Your task to perform on an android device: delete location history Image 0: 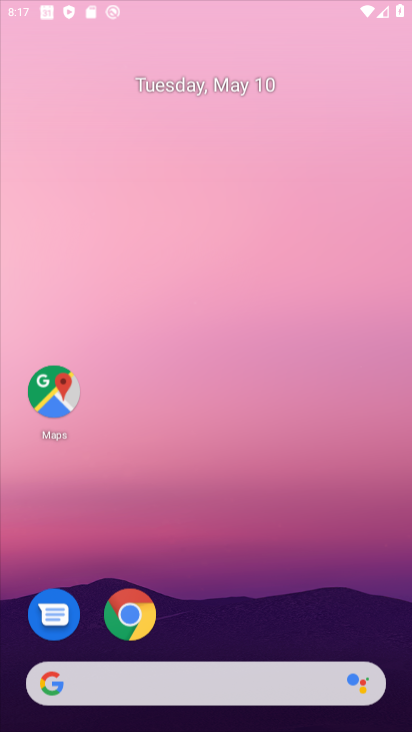
Step 0: click (220, 197)
Your task to perform on an android device: delete location history Image 1: 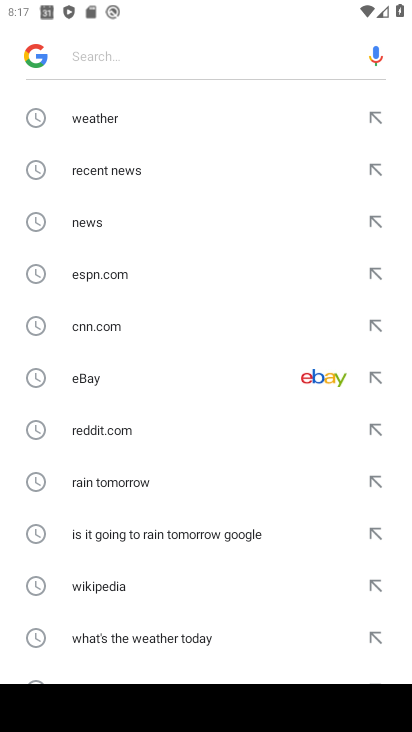
Step 1: press home button
Your task to perform on an android device: delete location history Image 2: 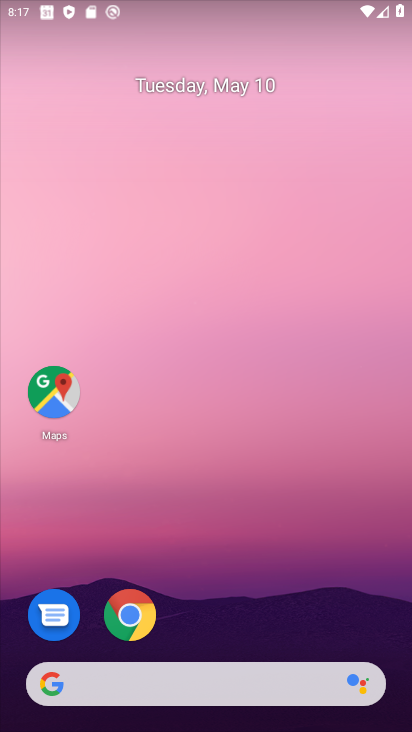
Step 2: drag from (212, 621) to (222, 204)
Your task to perform on an android device: delete location history Image 3: 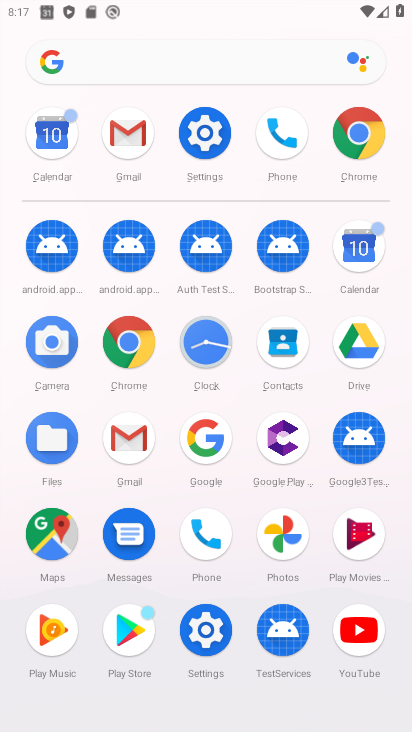
Step 3: click (213, 130)
Your task to perform on an android device: delete location history Image 4: 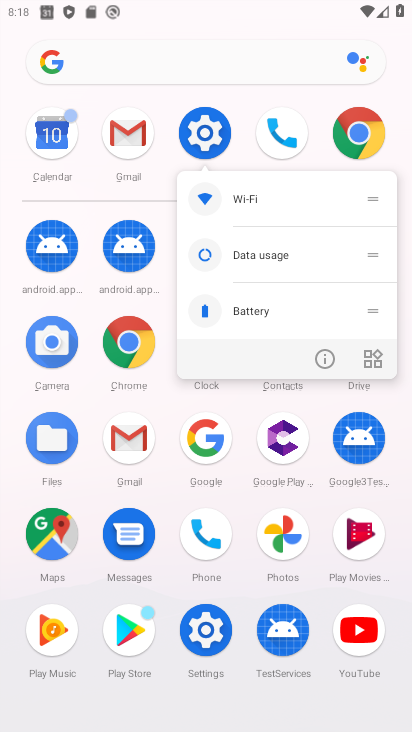
Step 4: click (330, 356)
Your task to perform on an android device: delete location history Image 5: 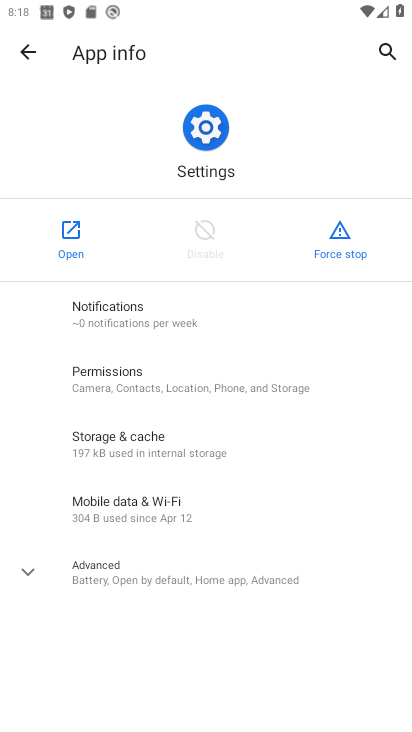
Step 5: click (85, 258)
Your task to perform on an android device: delete location history Image 6: 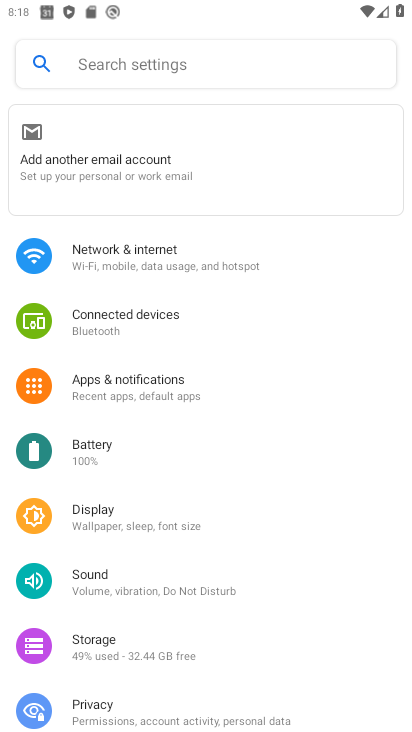
Step 6: drag from (191, 613) to (220, 229)
Your task to perform on an android device: delete location history Image 7: 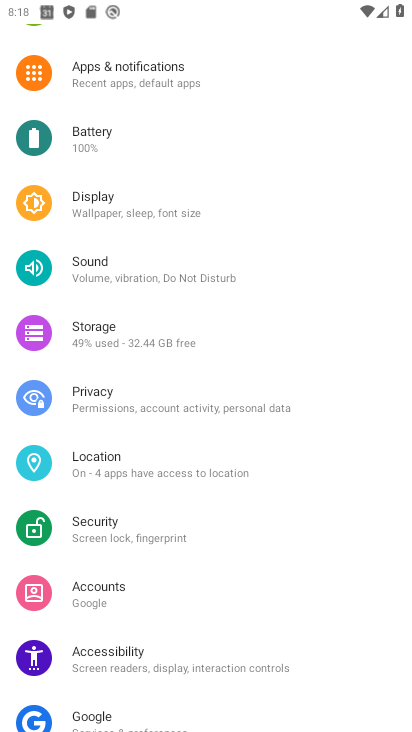
Step 7: click (139, 476)
Your task to perform on an android device: delete location history Image 8: 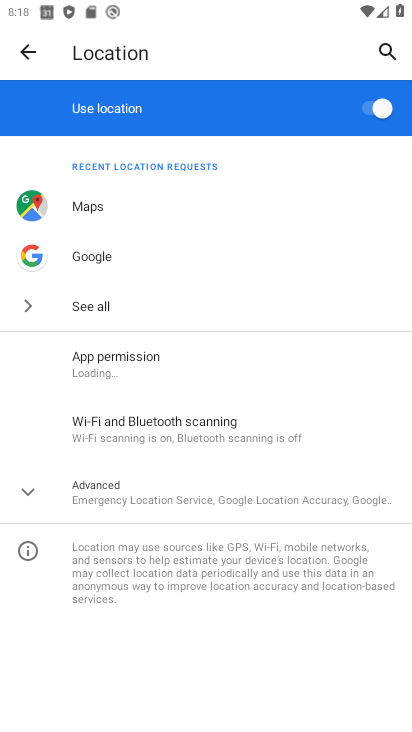
Step 8: click (107, 461)
Your task to perform on an android device: delete location history Image 9: 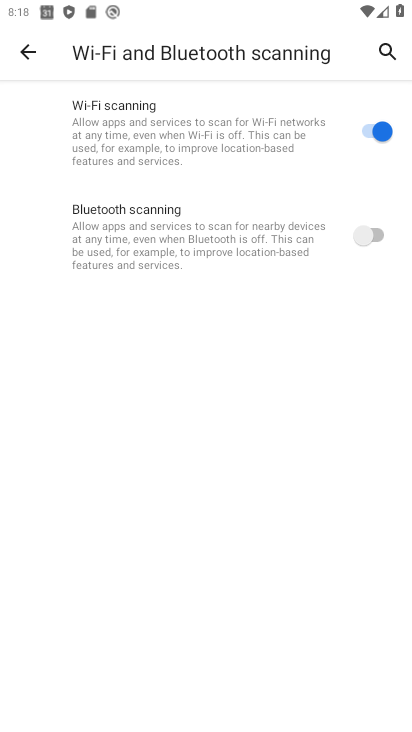
Step 9: click (29, 53)
Your task to perform on an android device: delete location history Image 10: 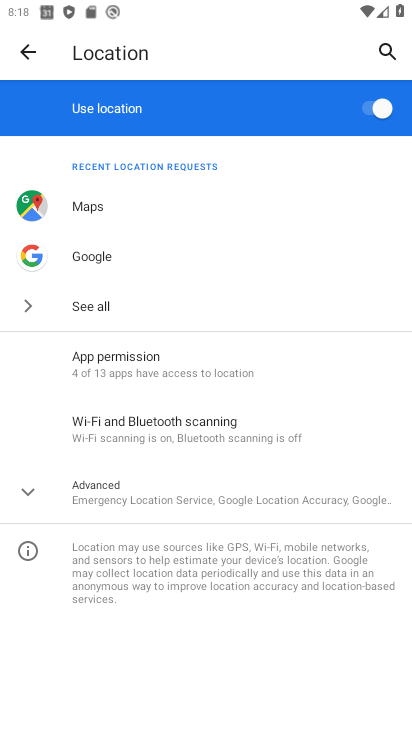
Step 10: click (146, 492)
Your task to perform on an android device: delete location history Image 11: 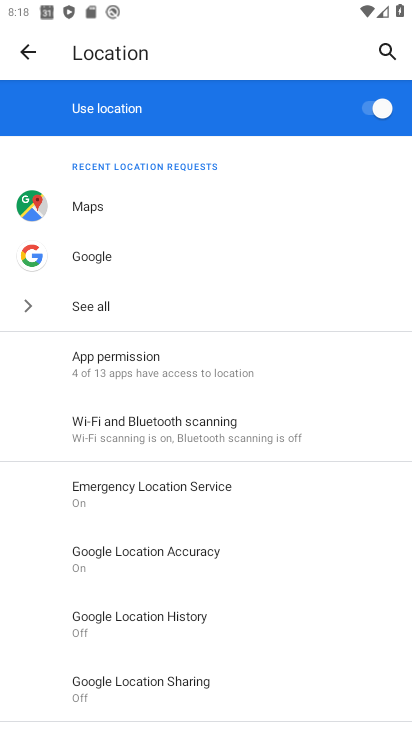
Step 11: click (175, 625)
Your task to perform on an android device: delete location history Image 12: 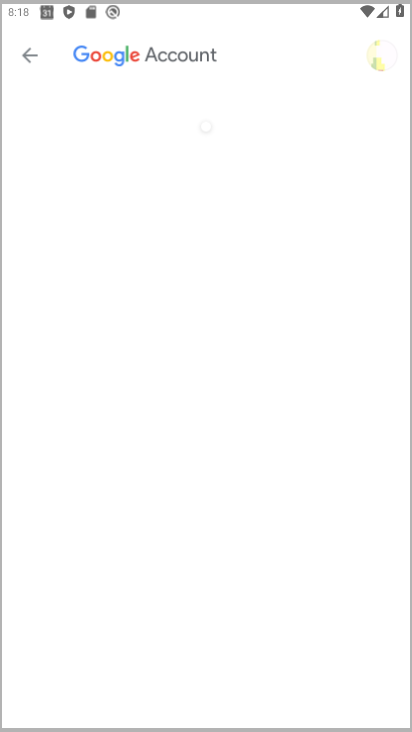
Step 12: drag from (257, 538) to (245, 419)
Your task to perform on an android device: delete location history Image 13: 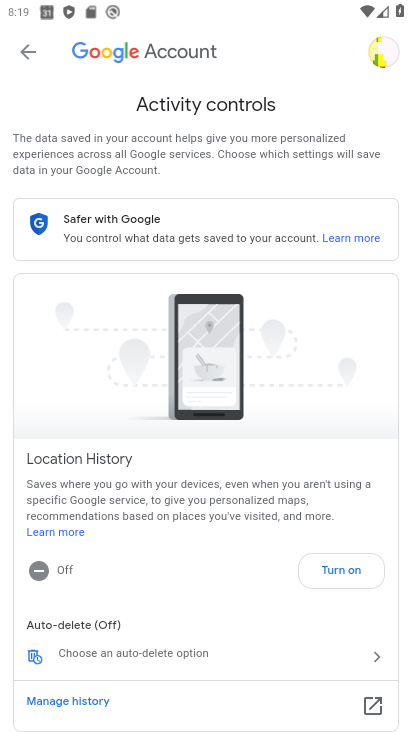
Step 13: drag from (206, 589) to (191, 338)
Your task to perform on an android device: delete location history Image 14: 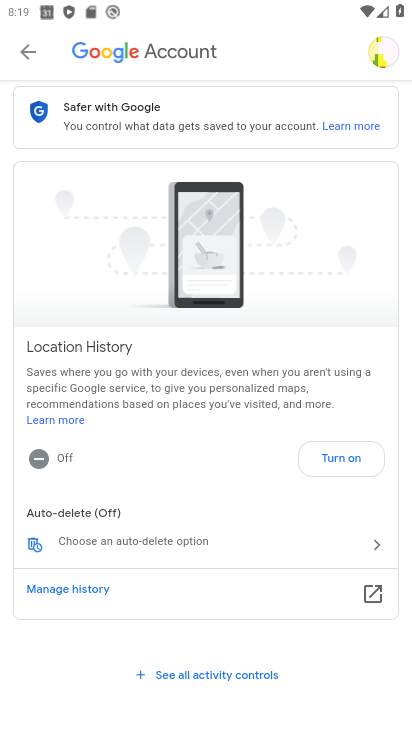
Step 14: click (39, 546)
Your task to perform on an android device: delete location history Image 15: 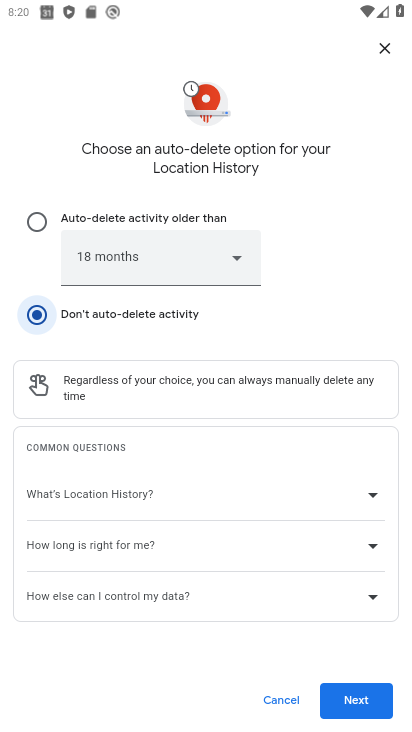
Step 15: click (359, 706)
Your task to perform on an android device: delete location history Image 16: 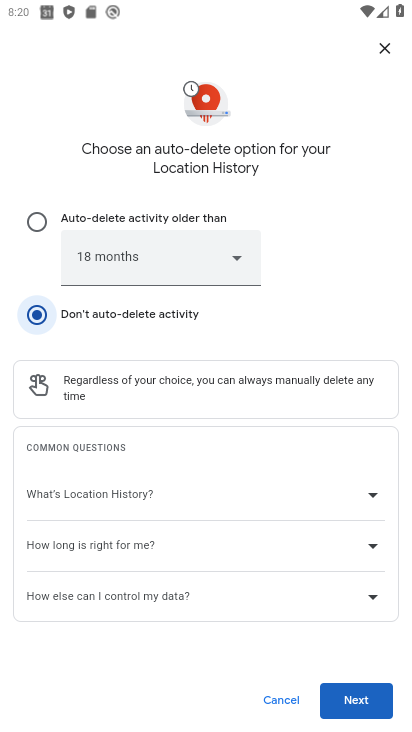
Step 16: click (351, 701)
Your task to perform on an android device: delete location history Image 17: 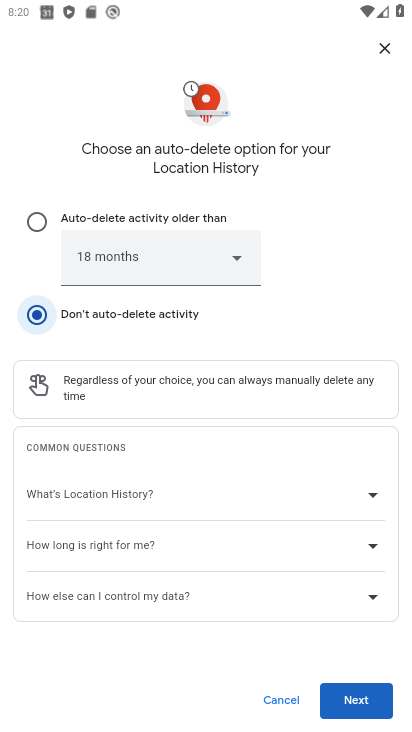
Step 17: click (354, 703)
Your task to perform on an android device: delete location history Image 18: 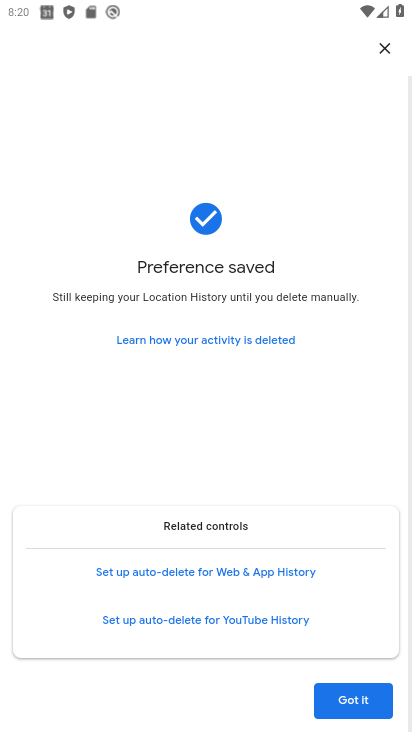
Step 18: click (351, 701)
Your task to perform on an android device: delete location history Image 19: 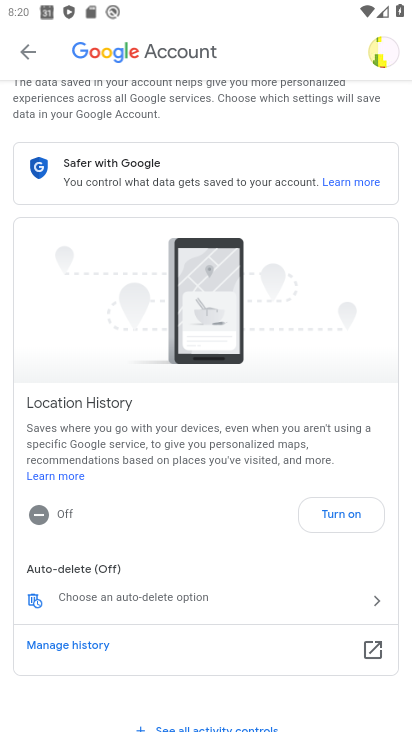
Step 19: task complete